Your task to perform on an android device: check storage Image 0: 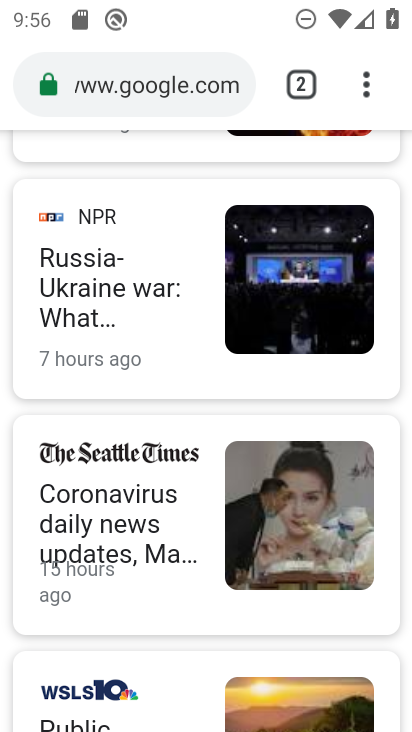
Step 0: press home button
Your task to perform on an android device: check storage Image 1: 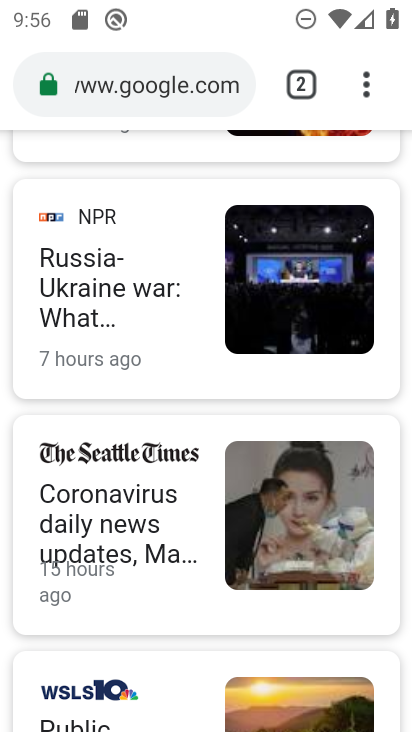
Step 1: press home button
Your task to perform on an android device: check storage Image 2: 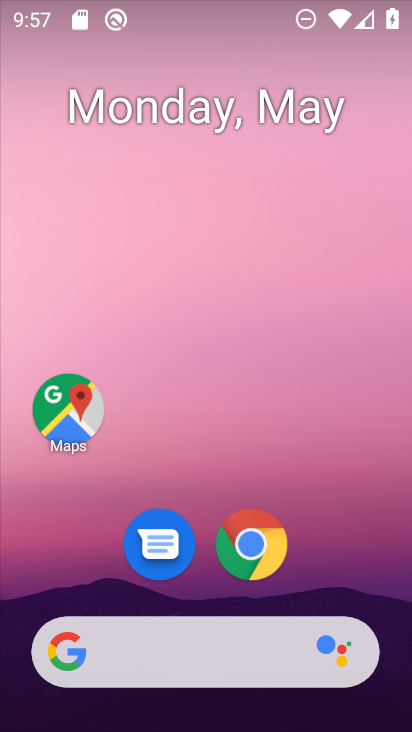
Step 2: drag from (337, 556) to (269, 184)
Your task to perform on an android device: check storage Image 3: 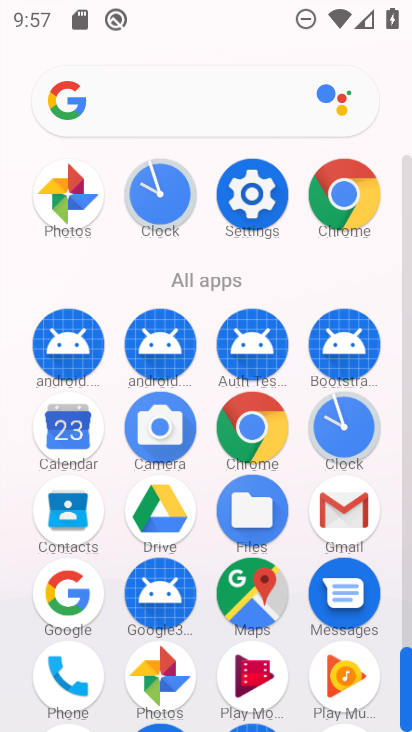
Step 3: click (258, 216)
Your task to perform on an android device: check storage Image 4: 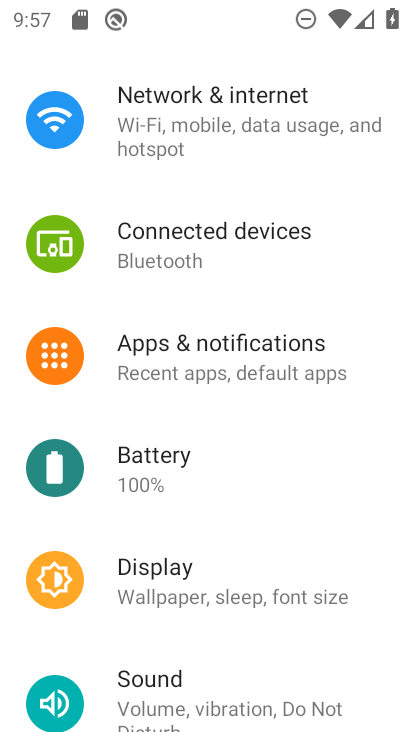
Step 4: drag from (299, 630) to (319, 290)
Your task to perform on an android device: check storage Image 5: 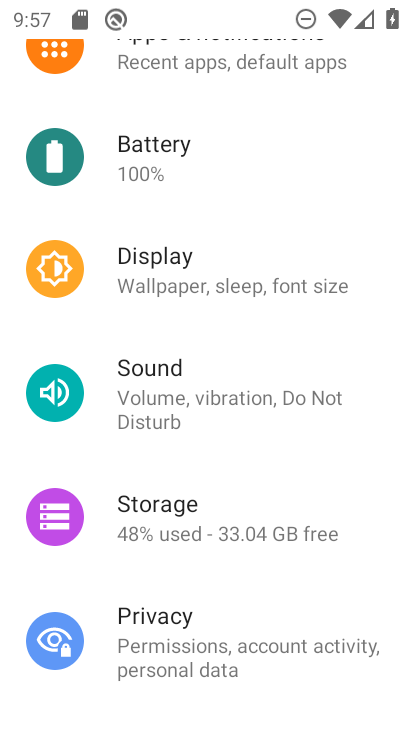
Step 5: click (210, 526)
Your task to perform on an android device: check storage Image 6: 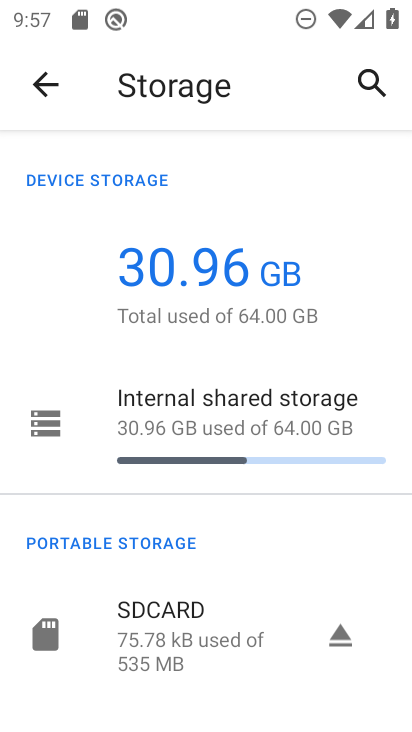
Step 6: task complete